Your task to perform on an android device: delete the emails in spam in the gmail app Image 0: 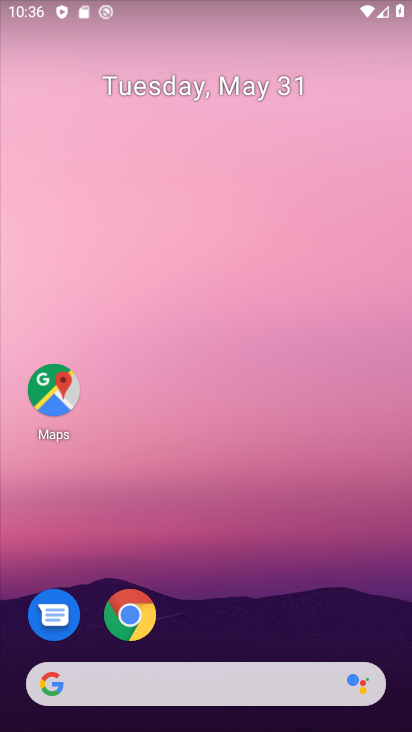
Step 0: drag from (191, 594) to (303, 22)
Your task to perform on an android device: delete the emails in spam in the gmail app Image 1: 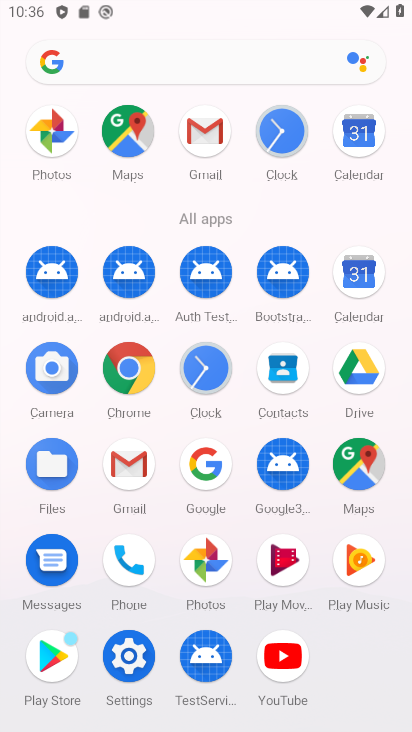
Step 1: click (129, 478)
Your task to perform on an android device: delete the emails in spam in the gmail app Image 2: 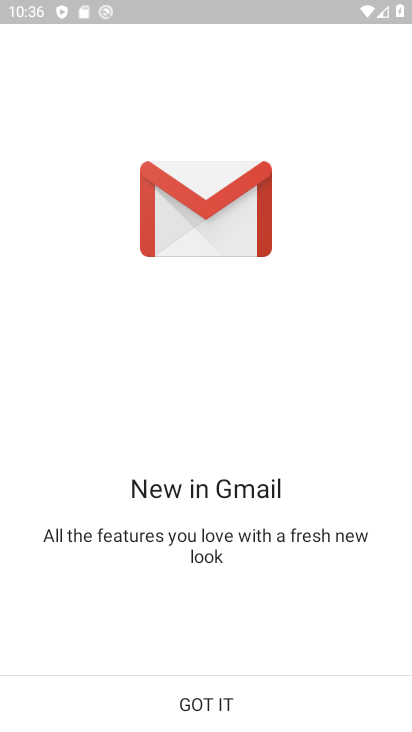
Step 2: click (227, 696)
Your task to perform on an android device: delete the emails in spam in the gmail app Image 3: 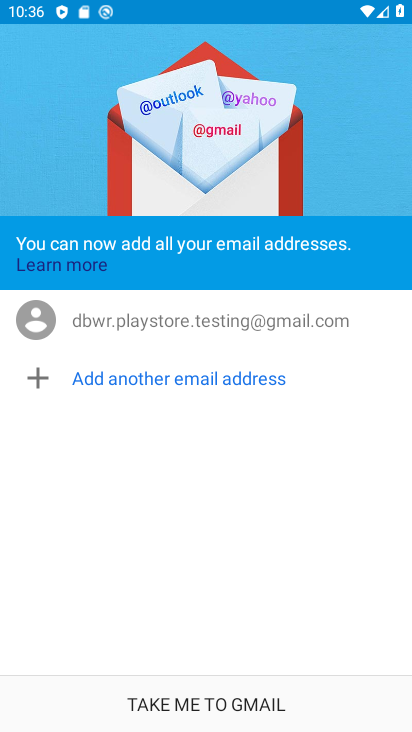
Step 3: click (227, 696)
Your task to perform on an android device: delete the emails in spam in the gmail app Image 4: 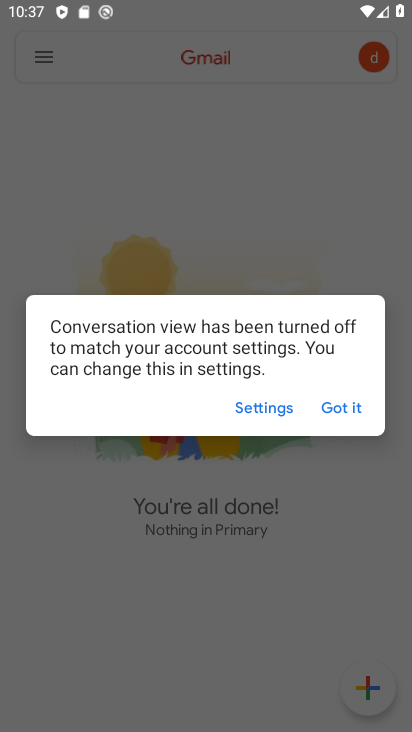
Step 4: click (356, 405)
Your task to perform on an android device: delete the emails in spam in the gmail app Image 5: 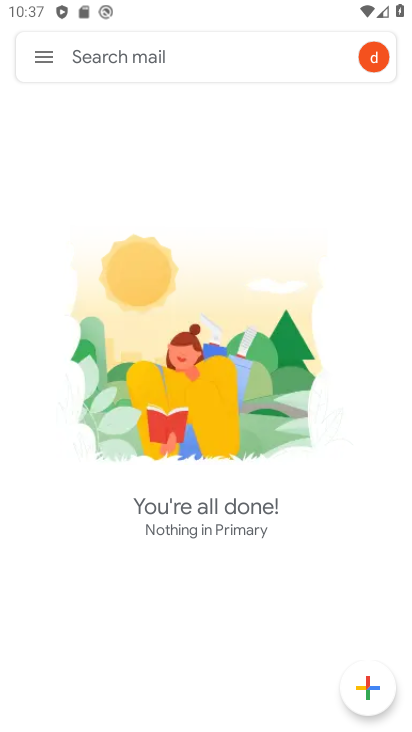
Step 5: click (47, 46)
Your task to perform on an android device: delete the emails in spam in the gmail app Image 6: 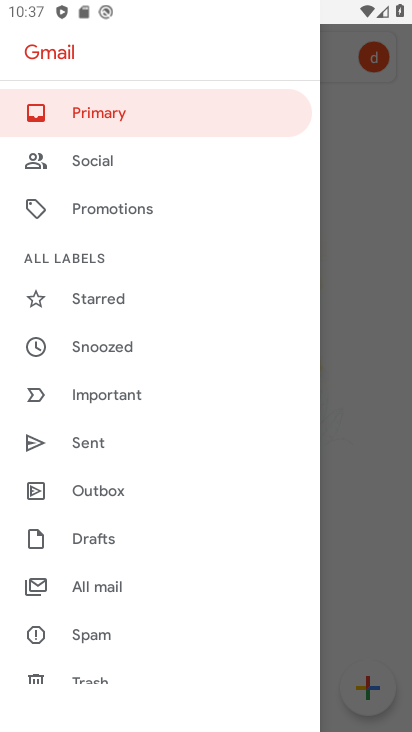
Step 6: click (119, 637)
Your task to perform on an android device: delete the emails in spam in the gmail app Image 7: 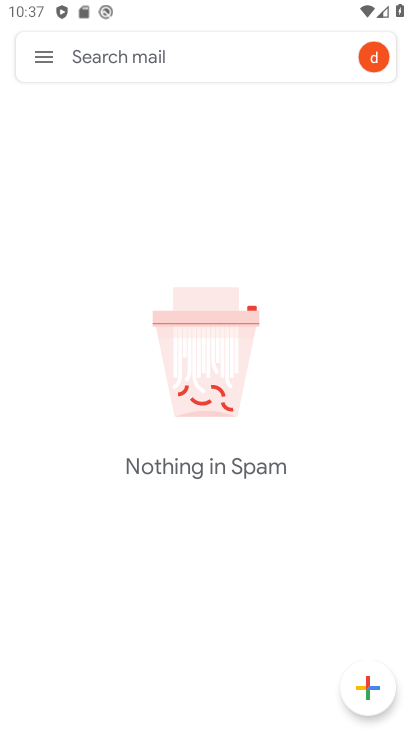
Step 7: task complete